Your task to perform on an android device: turn on bluetooth scan Image 0: 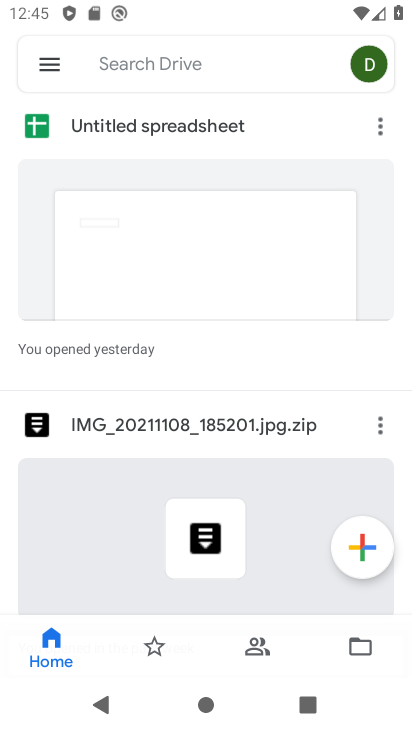
Step 0: press home button
Your task to perform on an android device: turn on bluetooth scan Image 1: 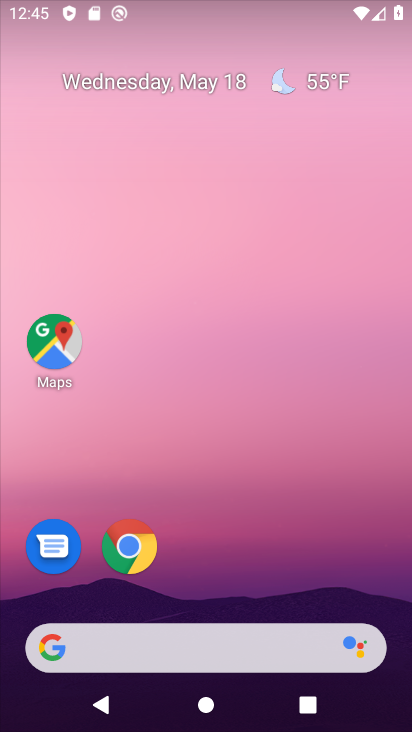
Step 1: drag from (353, 555) to (366, 218)
Your task to perform on an android device: turn on bluetooth scan Image 2: 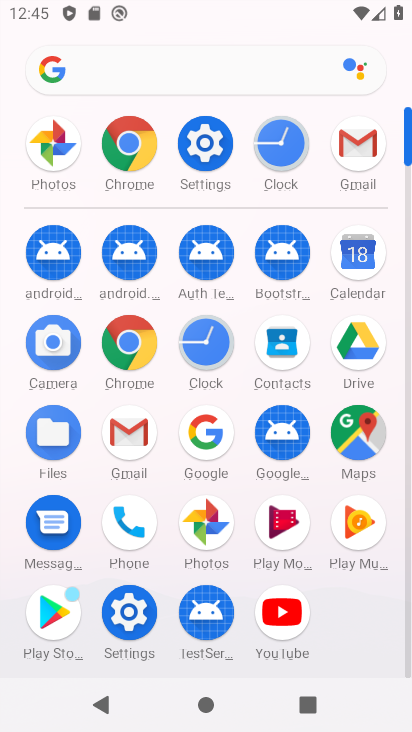
Step 2: click (130, 609)
Your task to perform on an android device: turn on bluetooth scan Image 3: 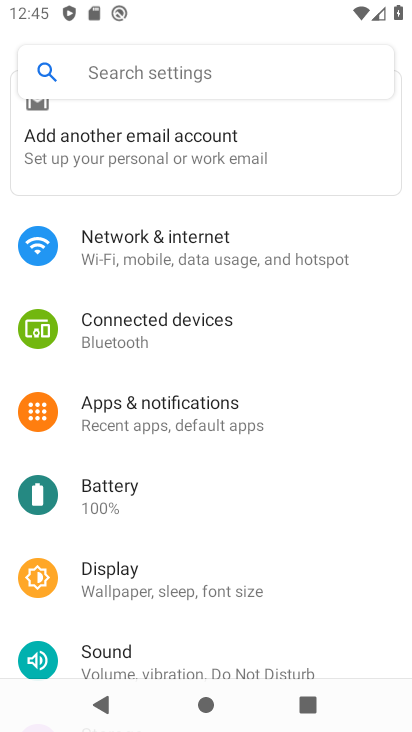
Step 3: drag from (153, 615) to (195, 403)
Your task to perform on an android device: turn on bluetooth scan Image 4: 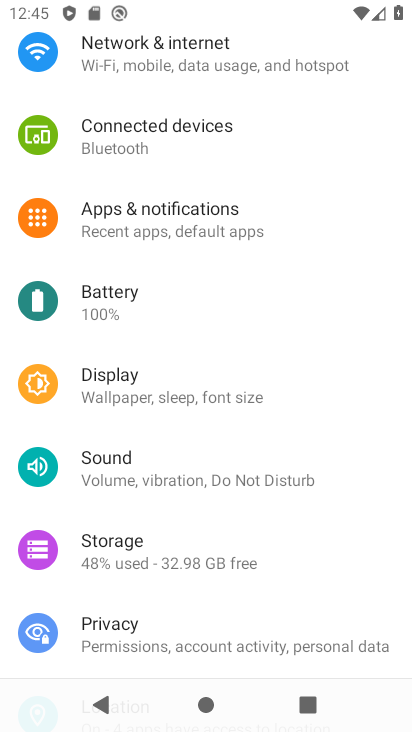
Step 4: drag from (194, 598) to (231, 388)
Your task to perform on an android device: turn on bluetooth scan Image 5: 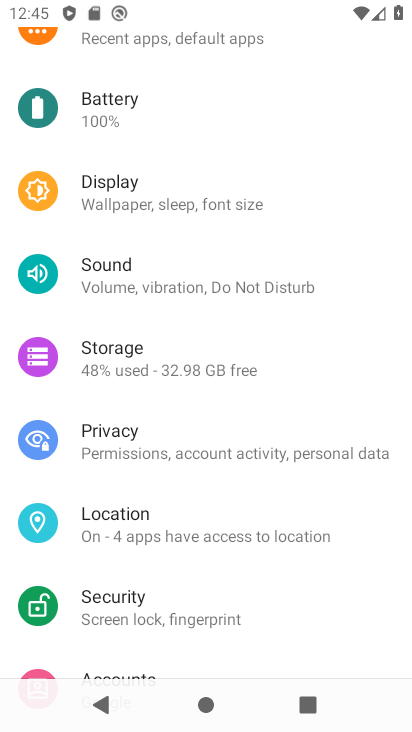
Step 5: click (171, 530)
Your task to perform on an android device: turn on bluetooth scan Image 6: 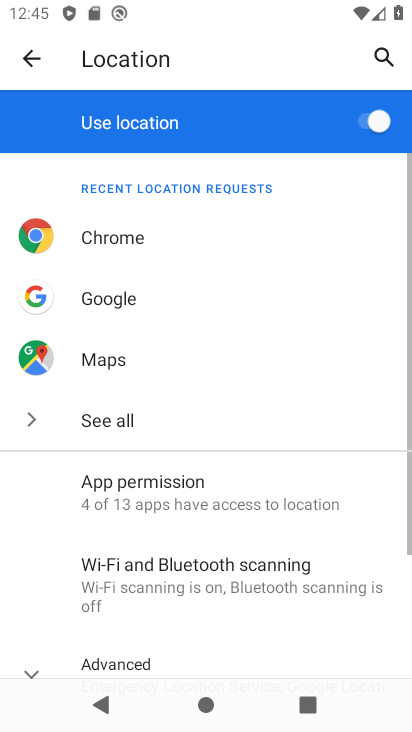
Step 6: drag from (332, 624) to (374, 376)
Your task to perform on an android device: turn on bluetooth scan Image 7: 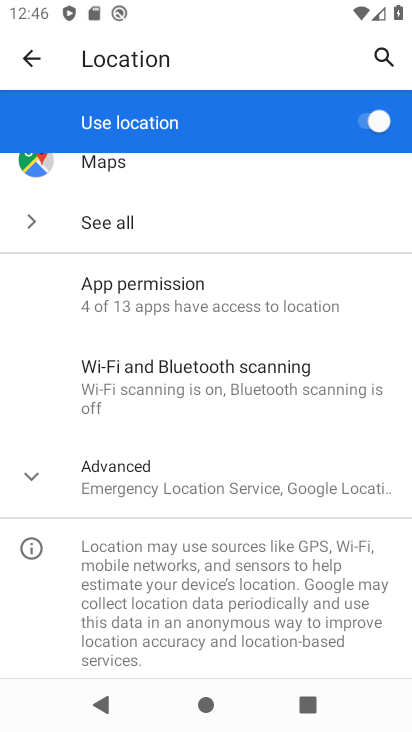
Step 7: click (308, 385)
Your task to perform on an android device: turn on bluetooth scan Image 8: 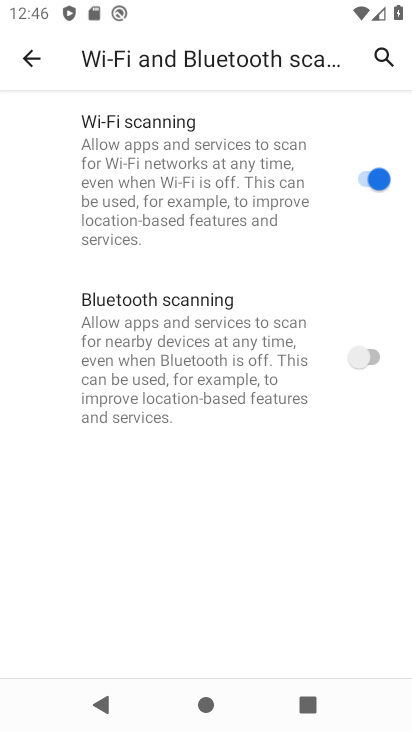
Step 8: click (372, 354)
Your task to perform on an android device: turn on bluetooth scan Image 9: 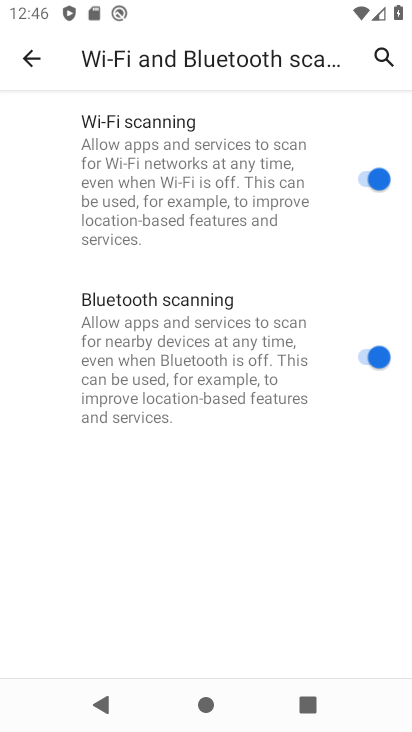
Step 9: task complete